Your task to perform on an android device: find snoozed emails in the gmail app Image 0: 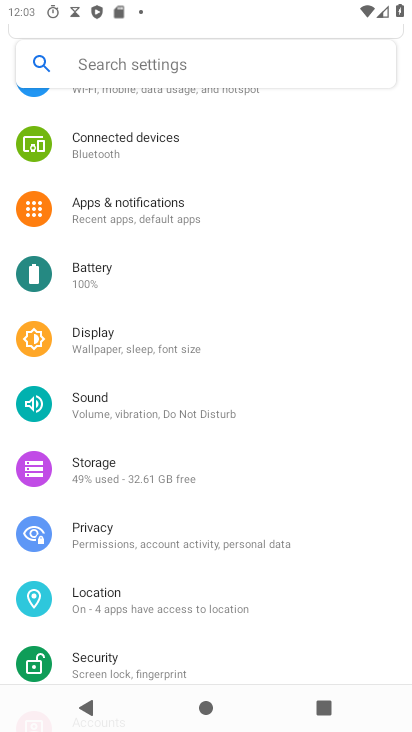
Step 0: press home button
Your task to perform on an android device: find snoozed emails in the gmail app Image 1: 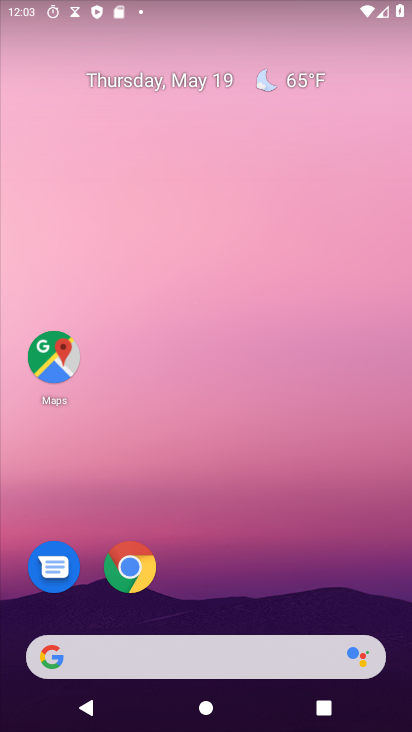
Step 1: drag from (219, 594) to (189, 118)
Your task to perform on an android device: find snoozed emails in the gmail app Image 2: 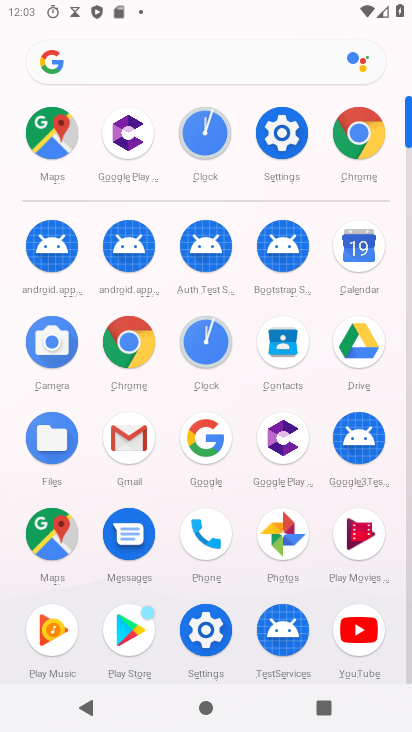
Step 2: click (131, 439)
Your task to perform on an android device: find snoozed emails in the gmail app Image 3: 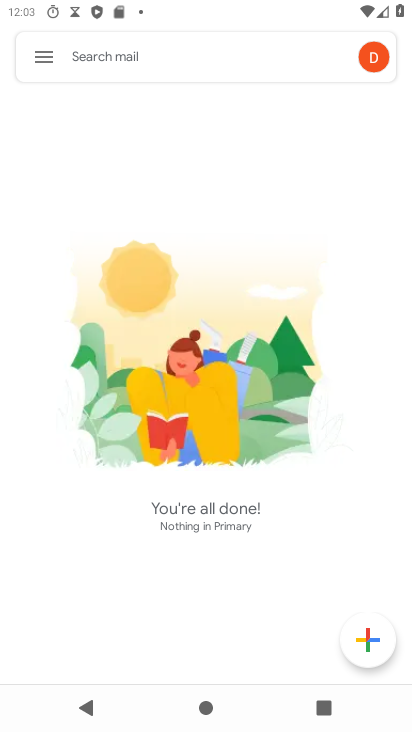
Step 3: click (49, 59)
Your task to perform on an android device: find snoozed emails in the gmail app Image 4: 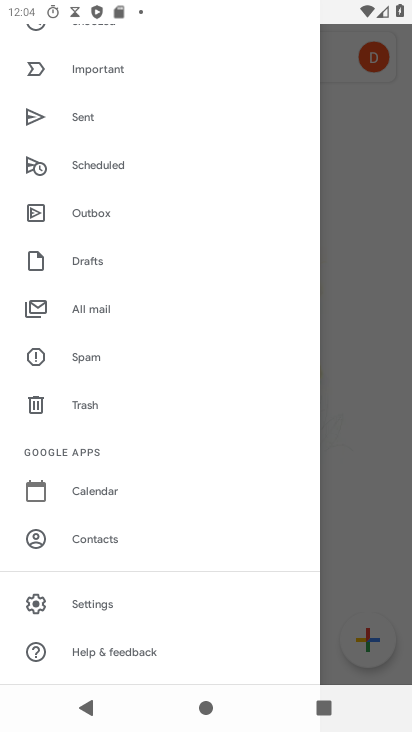
Step 4: drag from (123, 103) to (143, 289)
Your task to perform on an android device: find snoozed emails in the gmail app Image 5: 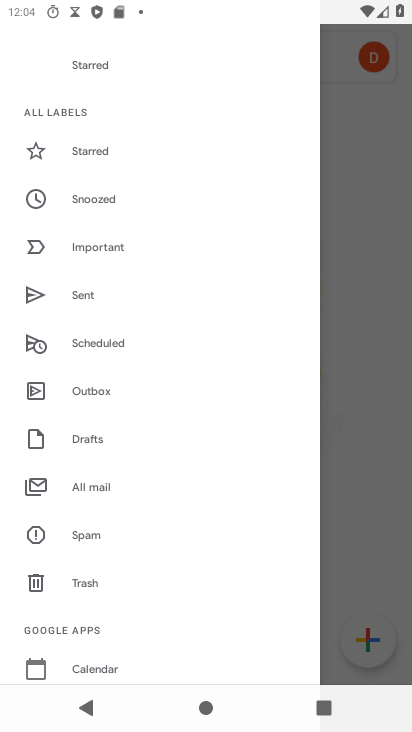
Step 5: click (111, 196)
Your task to perform on an android device: find snoozed emails in the gmail app Image 6: 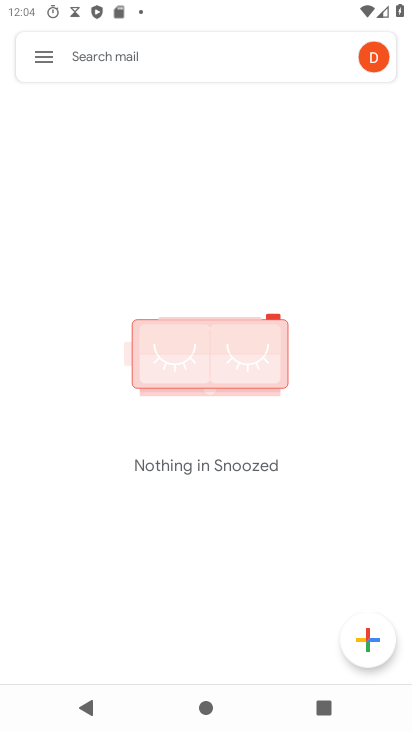
Step 6: task complete